Your task to perform on an android device: Show me recent news Image 0: 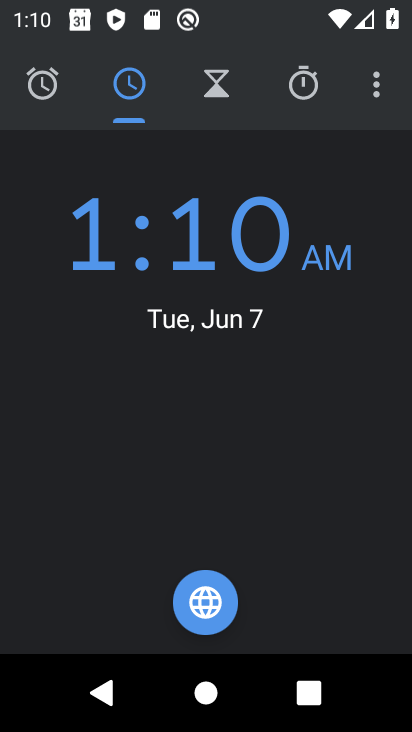
Step 0: press home button
Your task to perform on an android device: Show me recent news Image 1: 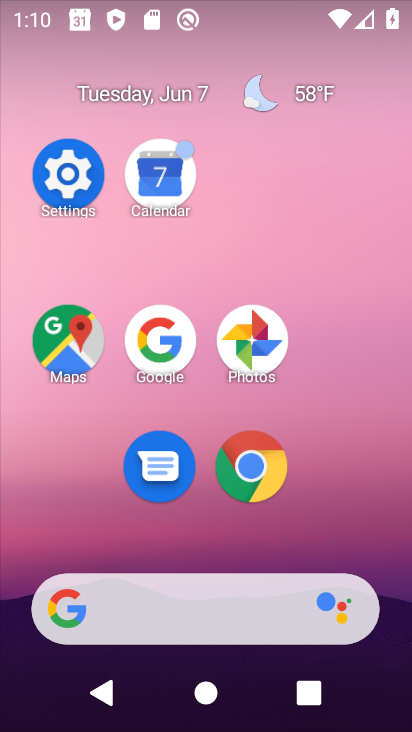
Step 1: click (159, 336)
Your task to perform on an android device: Show me recent news Image 2: 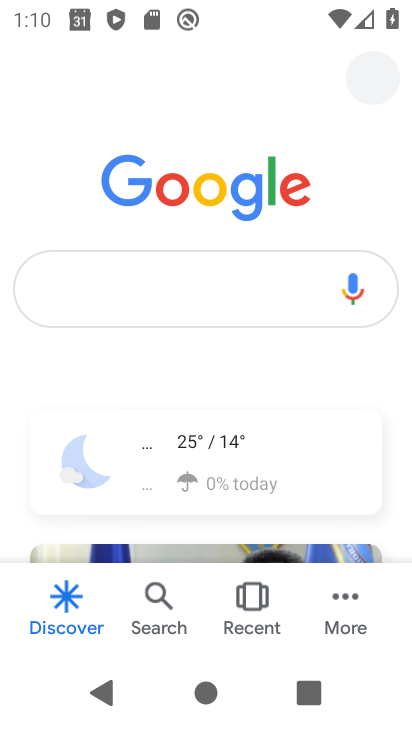
Step 2: click (191, 294)
Your task to perform on an android device: Show me recent news Image 3: 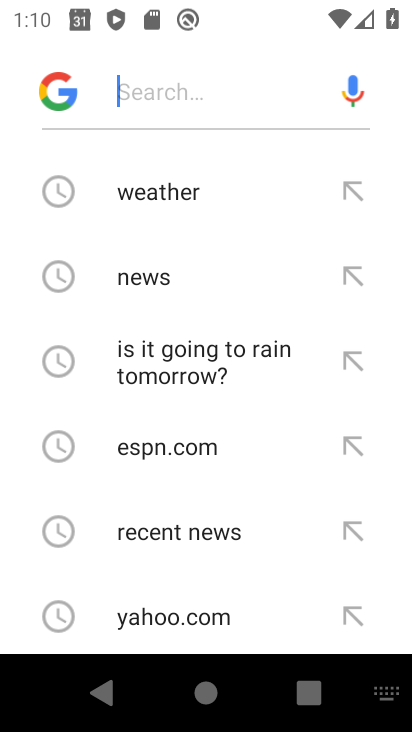
Step 3: click (226, 535)
Your task to perform on an android device: Show me recent news Image 4: 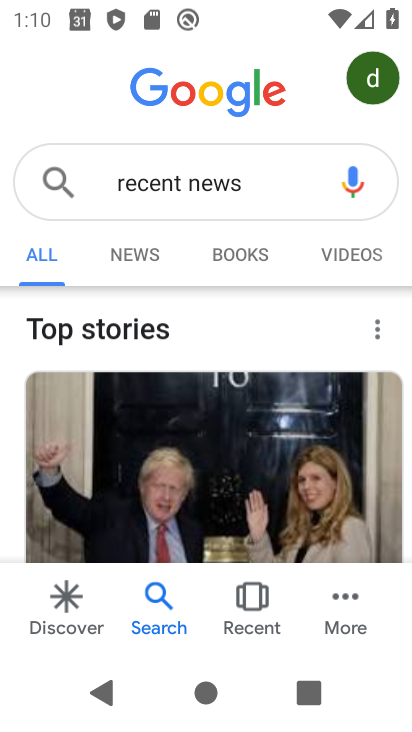
Step 4: task complete